Your task to perform on an android device: change your default location settings in chrome Image 0: 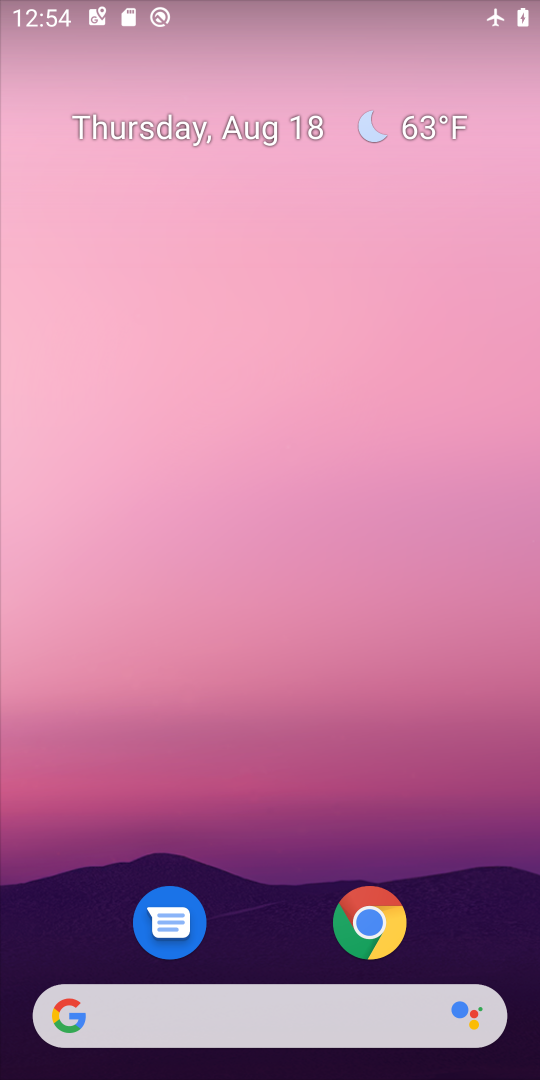
Step 0: click (377, 919)
Your task to perform on an android device: change your default location settings in chrome Image 1: 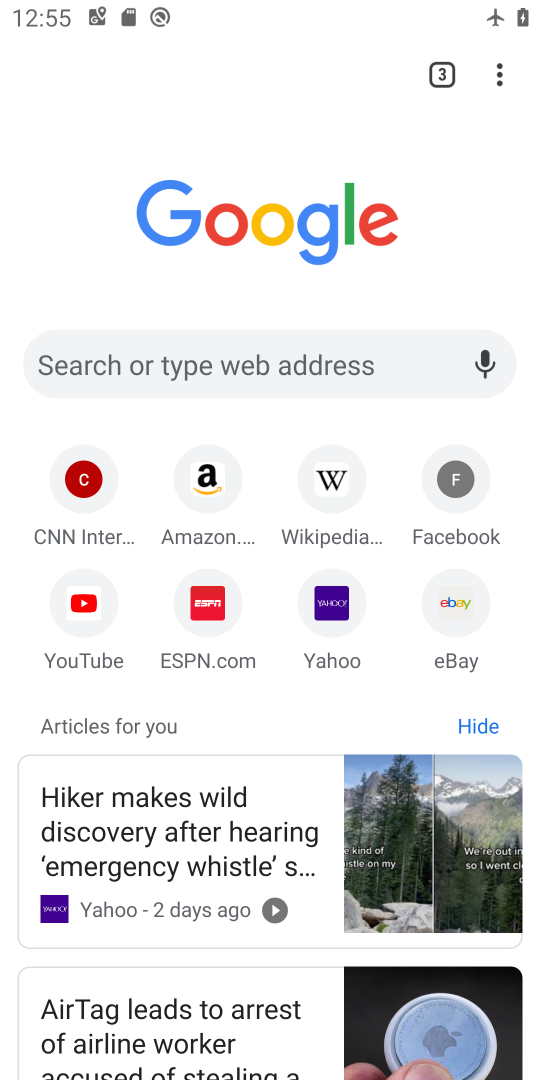
Step 1: click (499, 71)
Your task to perform on an android device: change your default location settings in chrome Image 2: 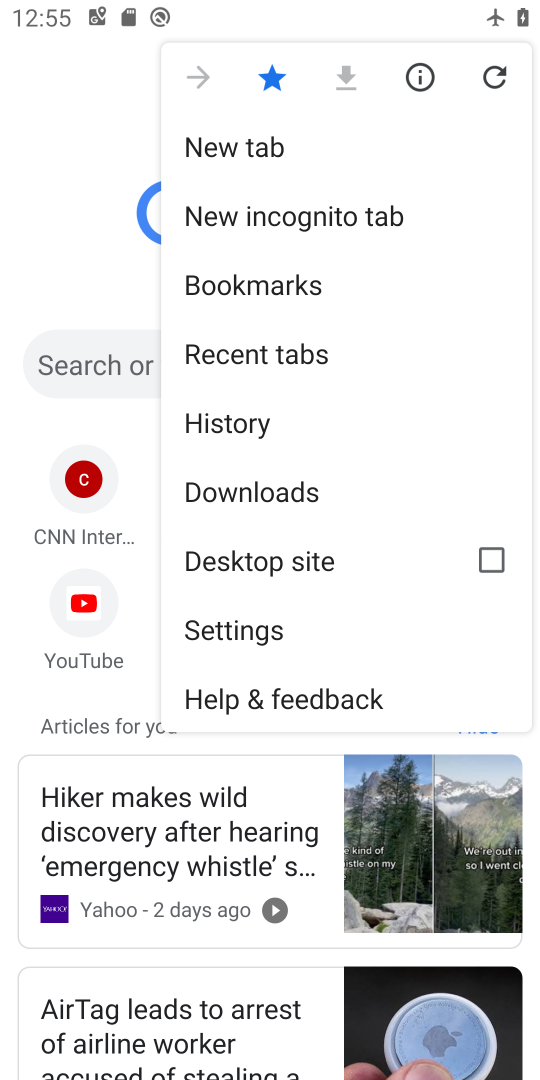
Step 2: click (228, 633)
Your task to perform on an android device: change your default location settings in chrome Image 3: 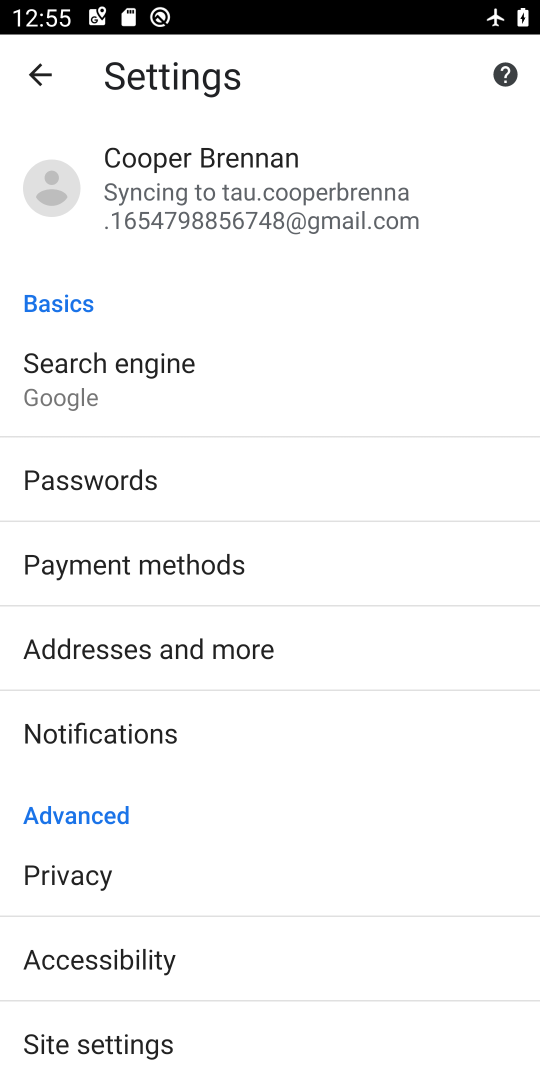
Step 3: click (109, 1032)
Your task to perform on an android device: change your default location settings in chrome Image 4: 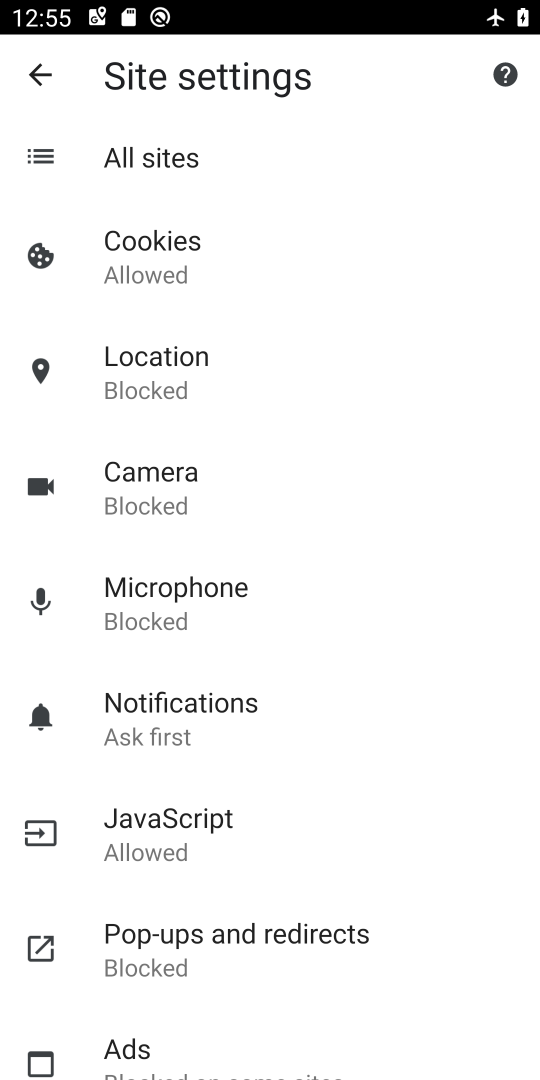
Step 4: click (133, 349)
Your task to perform on an android device: change your default location settings in chrome Image 5: 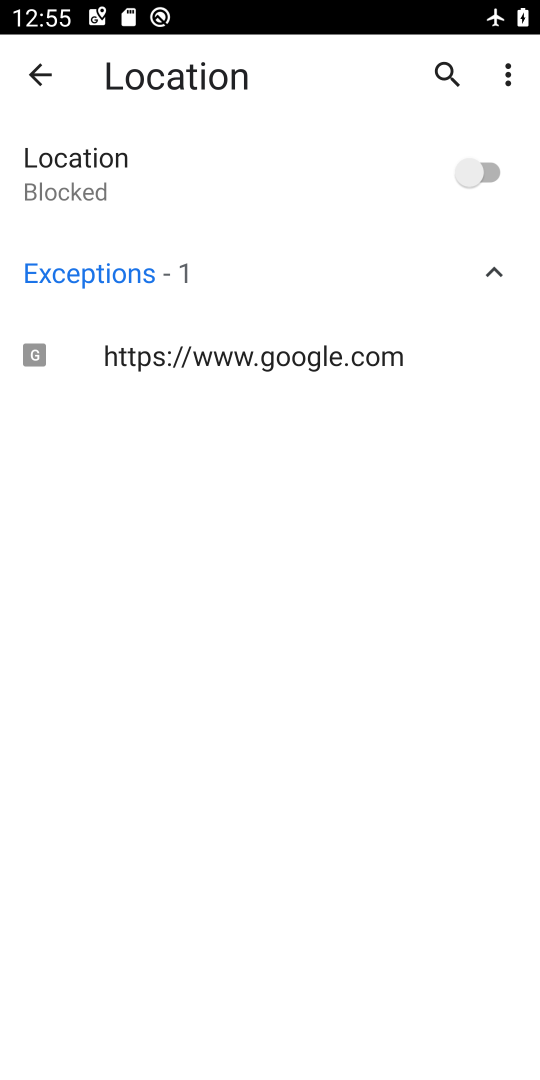
Step 5: click (467, 165)
Your task to perform on an android device: change your default location settings in chrome Image 6: 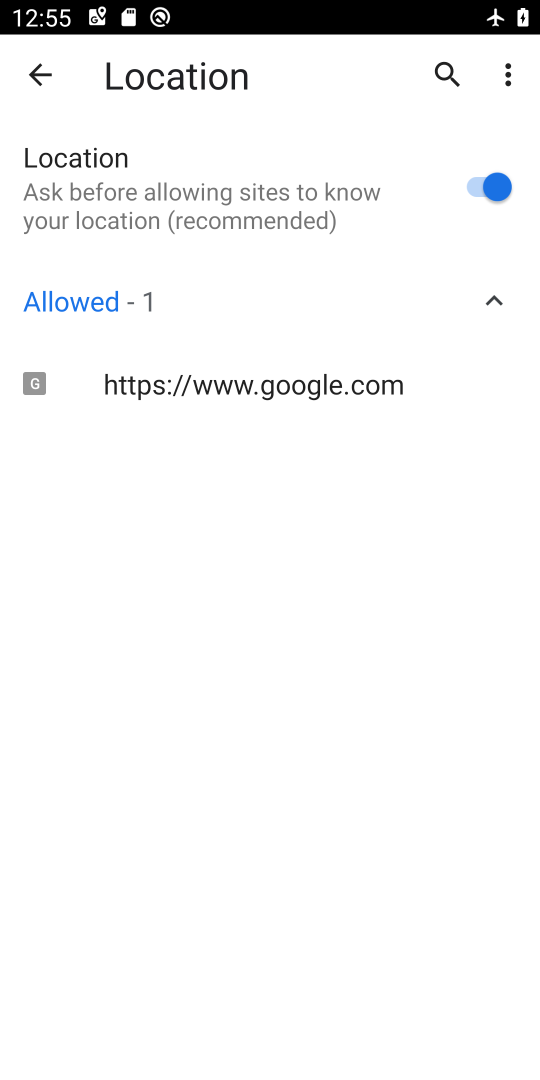
Step 6: task complete